Your task to perform on an android device: Go to accessibility settings Image 0: 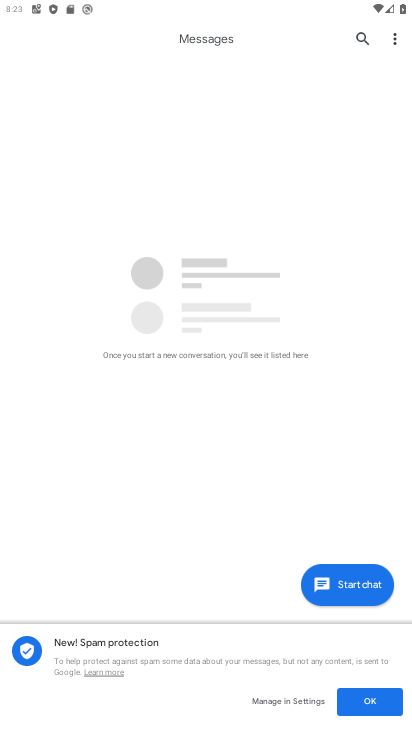
Step 0: drag from (215, 535) to (219, 240)
Your task to perform on an android device: Go to accessibility settings Image 1: 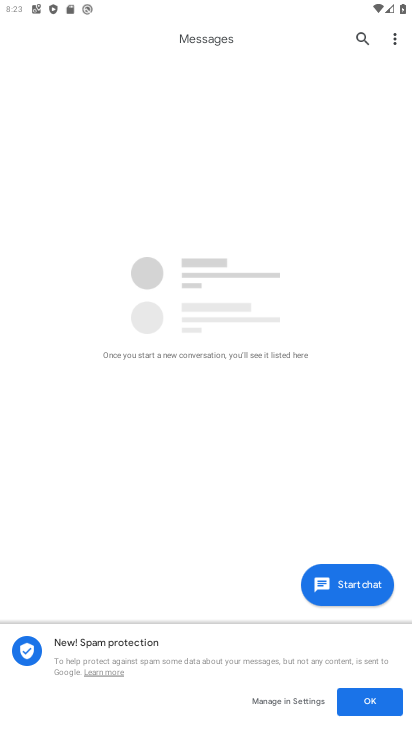
Step 1: drag from (225, 551) to (236, 488)
Your task to perform on an android device: Go to accessibility settings Image 2: 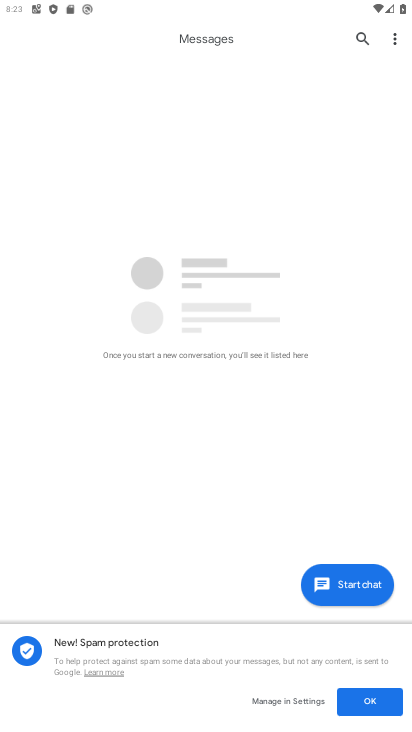
Step 2: press home button
Your task to perform on an android device: Go to accessibility settings Image 3: 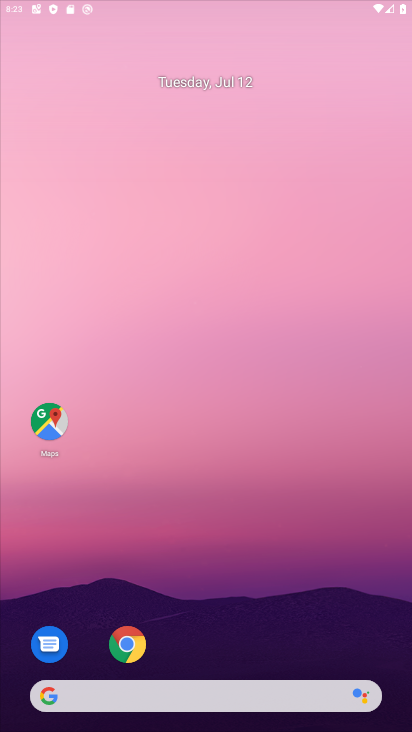
Step 3: drag from (203, 618) to (255, 103)
Your task to perform on an android device: Go to accessibility settings Image 4: 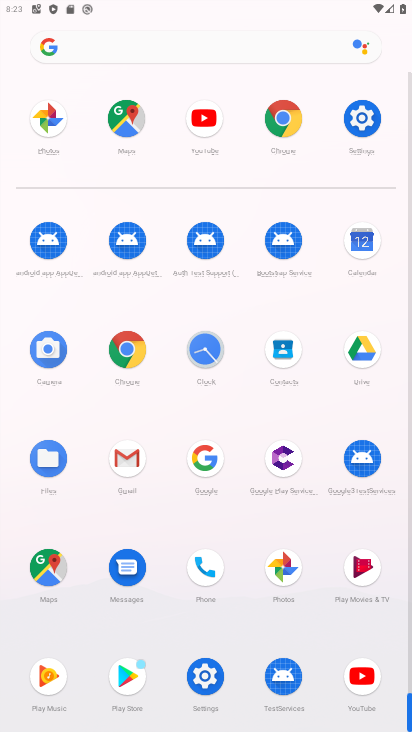
Step 4: click (354, 114)
Your task to perform on an android device: Go to accessibility settings Image 5: 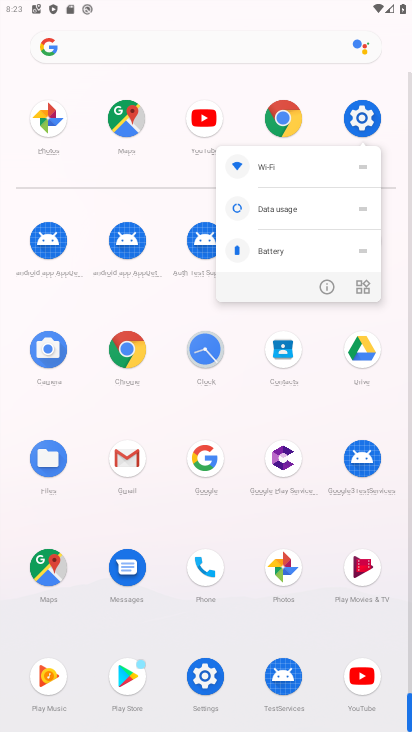
Step 5: click (336, 286)
Your task to perform on an android device: Go to accessibility settings Image 6: 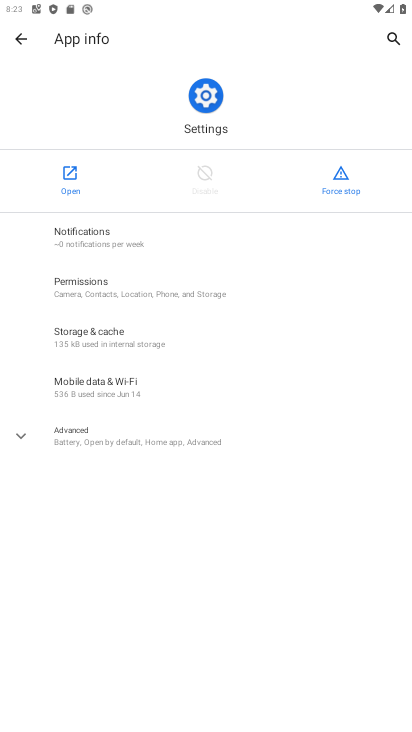
Step 6: click (69, 182)
Your task to perform on an android device: Go to accessibility settings Image 7: 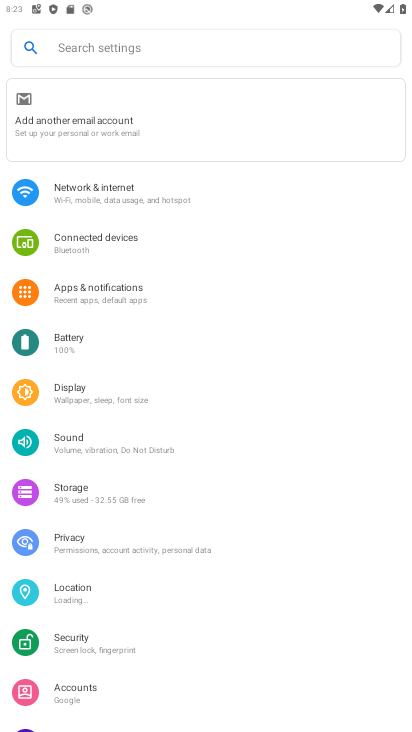
Step 7: drag from (245, 486) to (275, 360)
Your task to perform on an android device: Go to accessibility settings Image 8: 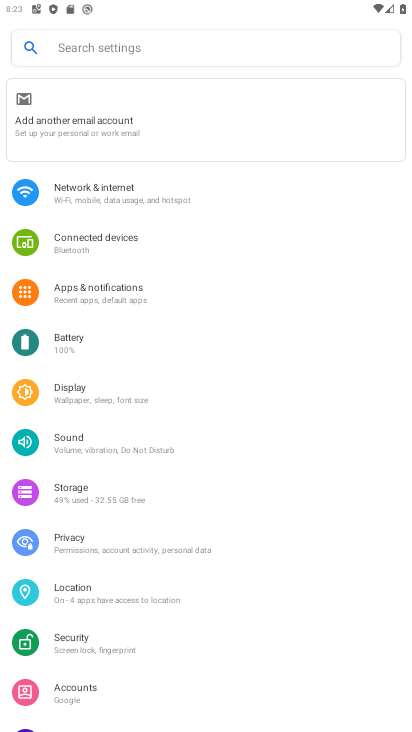
Step 8: drag from (134, 671) to (212, 319)
Your task to perform on an android device: Go to accessibility settings Image 9: 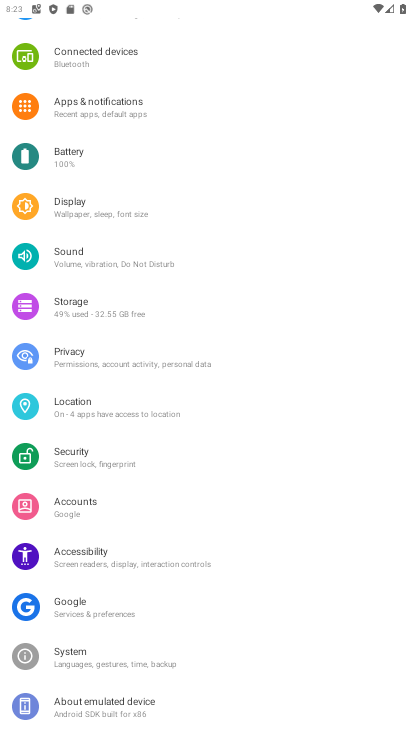
Step 9: drag from (160, 622) to (180, 455)
Your task to perform on an android device: Go to accessibility settings Image 10: 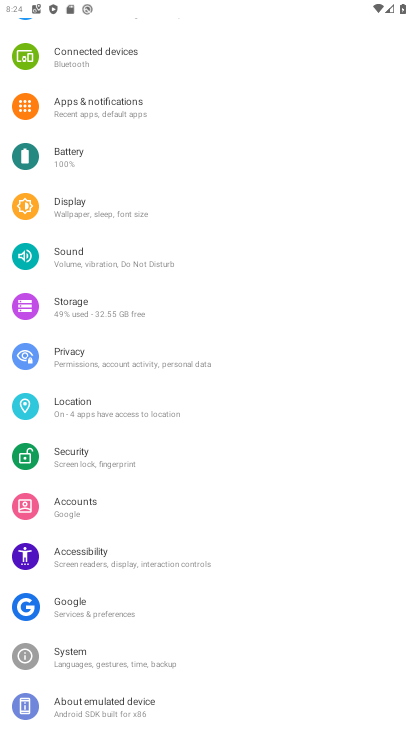
Step 10: drag from (178, 637) to (235, 361)
Your task to perform on an android device: Go to accessibility settings Image 11: 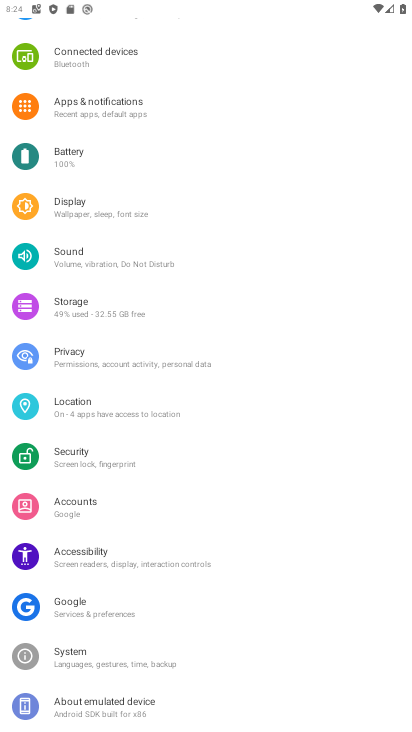
Step 11: drag from (133, 625) to (197, 127)
Your task to perform on an android device: Go to accessibility settings Image 12: 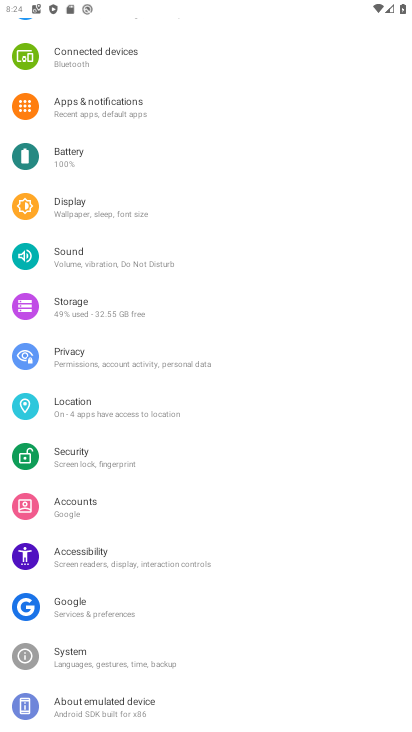
Step 12: click (101, 559)
Your task to perform on an android device: Go to accessibility settings Image 13: 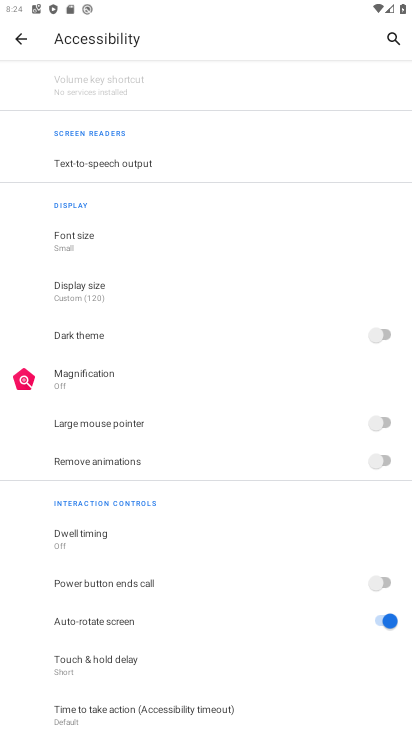
Step 13: task complete